Your task to perform on an android device: How much does a 3 bedroom apartment rent for in Denver? Image 0: 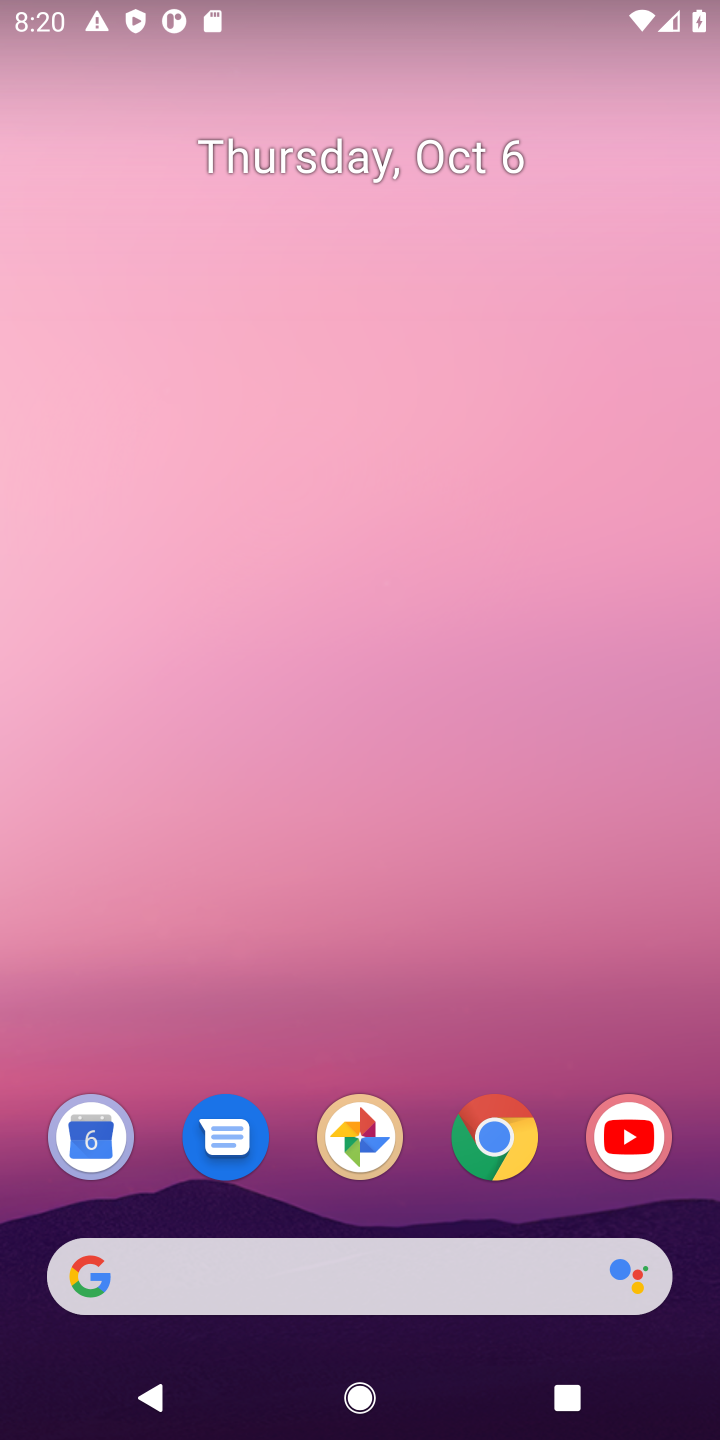
Step 0: click (513, 1136)
Your task to perform on an android device: How much does a 3 bedroom apartment rent for in Denver? Image 1: 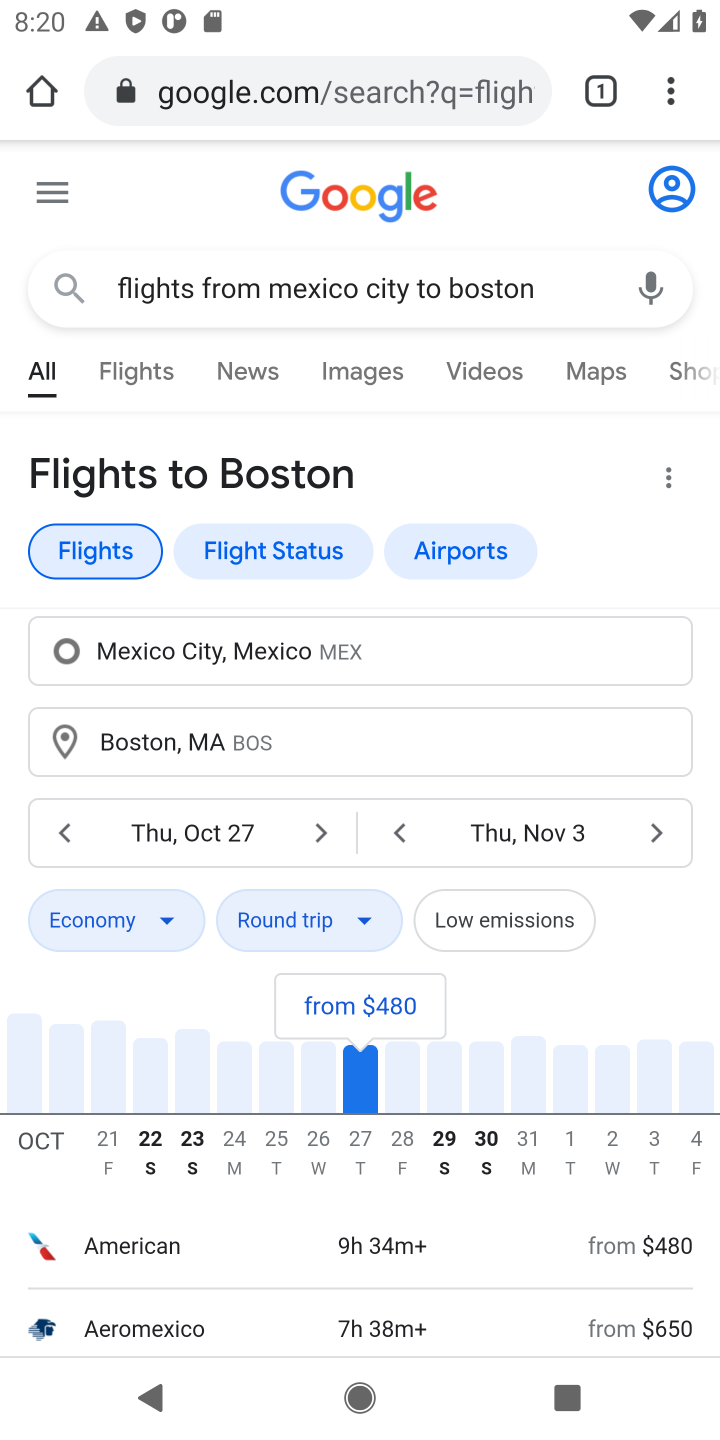
Step 1: click (351, 95)
Your task to perform on an android device: How much does a 3 bedroom apartment rent for in Denver? Image 2: 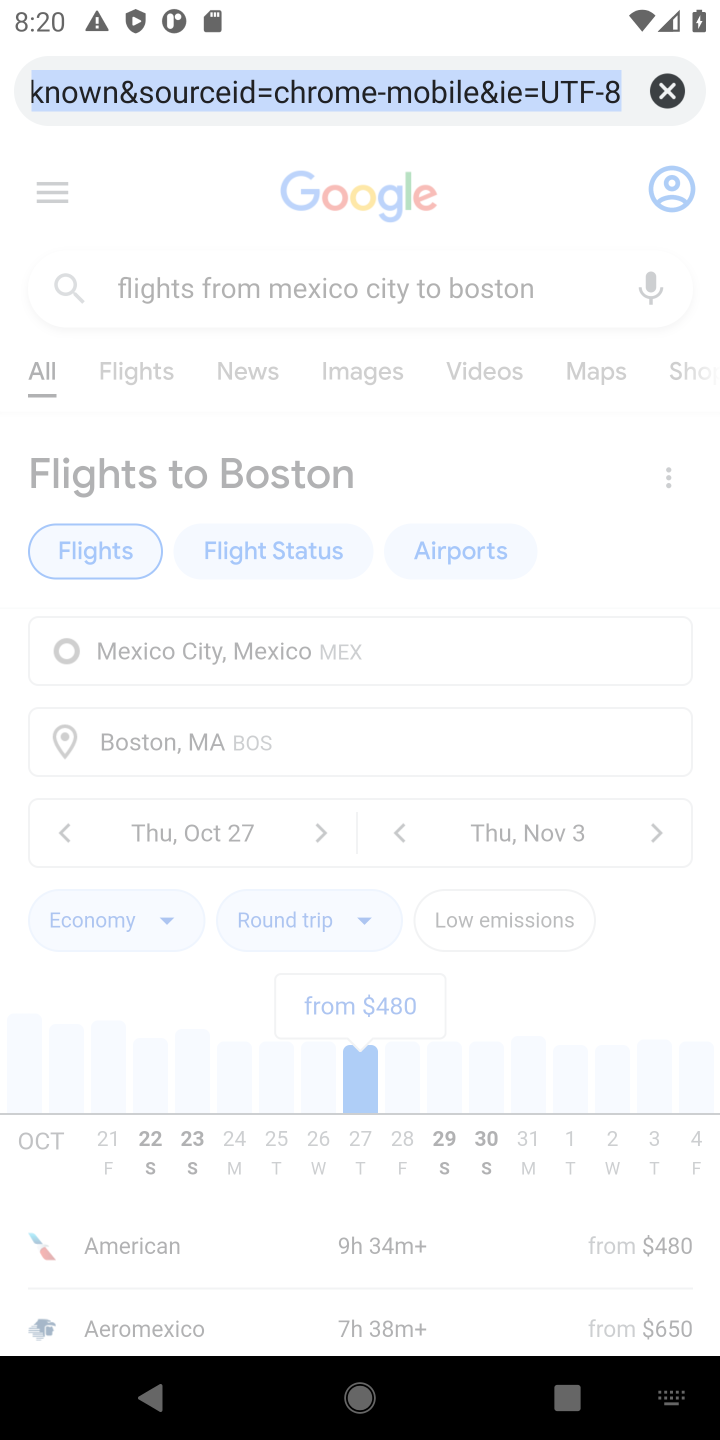
Step 2: click (672, 90)
Your task to perform on an android device: How much does a 3 bedroom apartment rent for in Denver? Image 3: 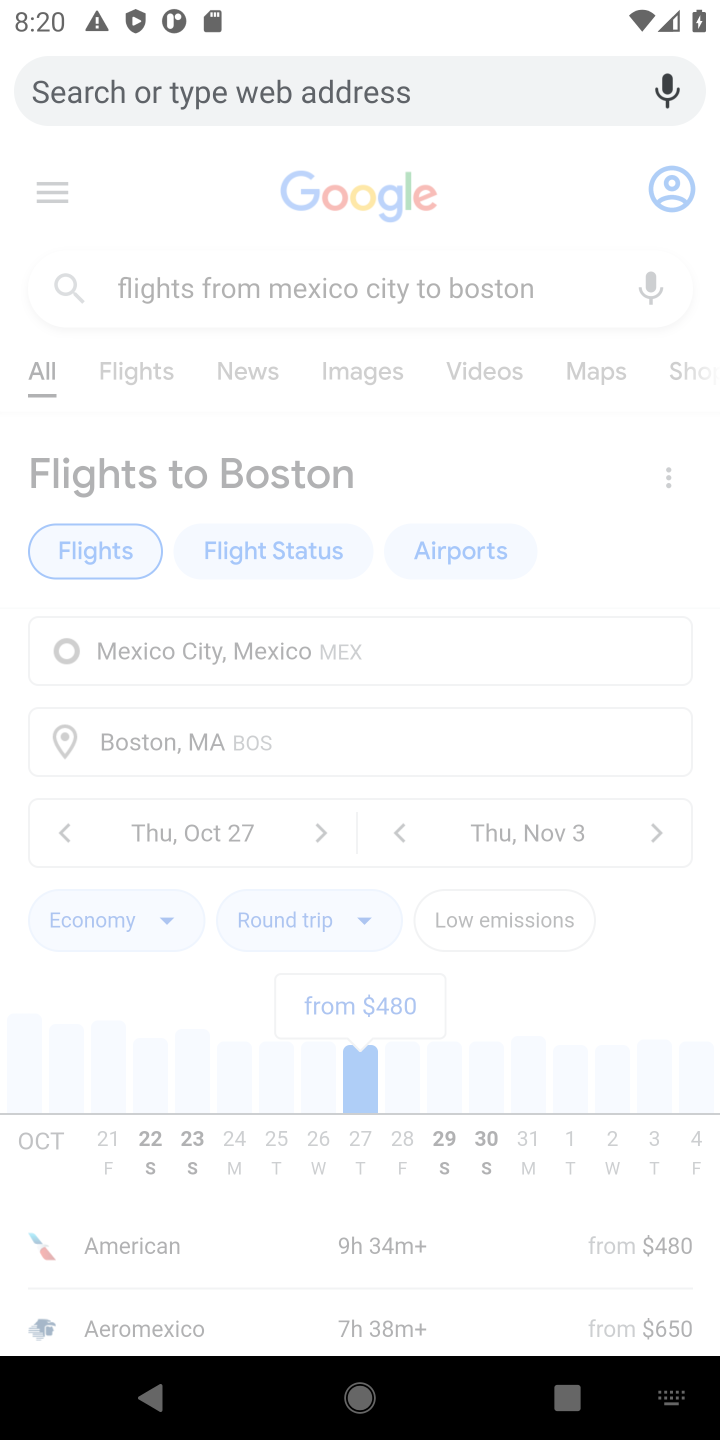
Step 3: type "How much does a 3 bedroom apartment rent for in Denver?"
Your task to perform on an android device: How much does a 3 bedroom apartment rent for in Denver? Image 4: 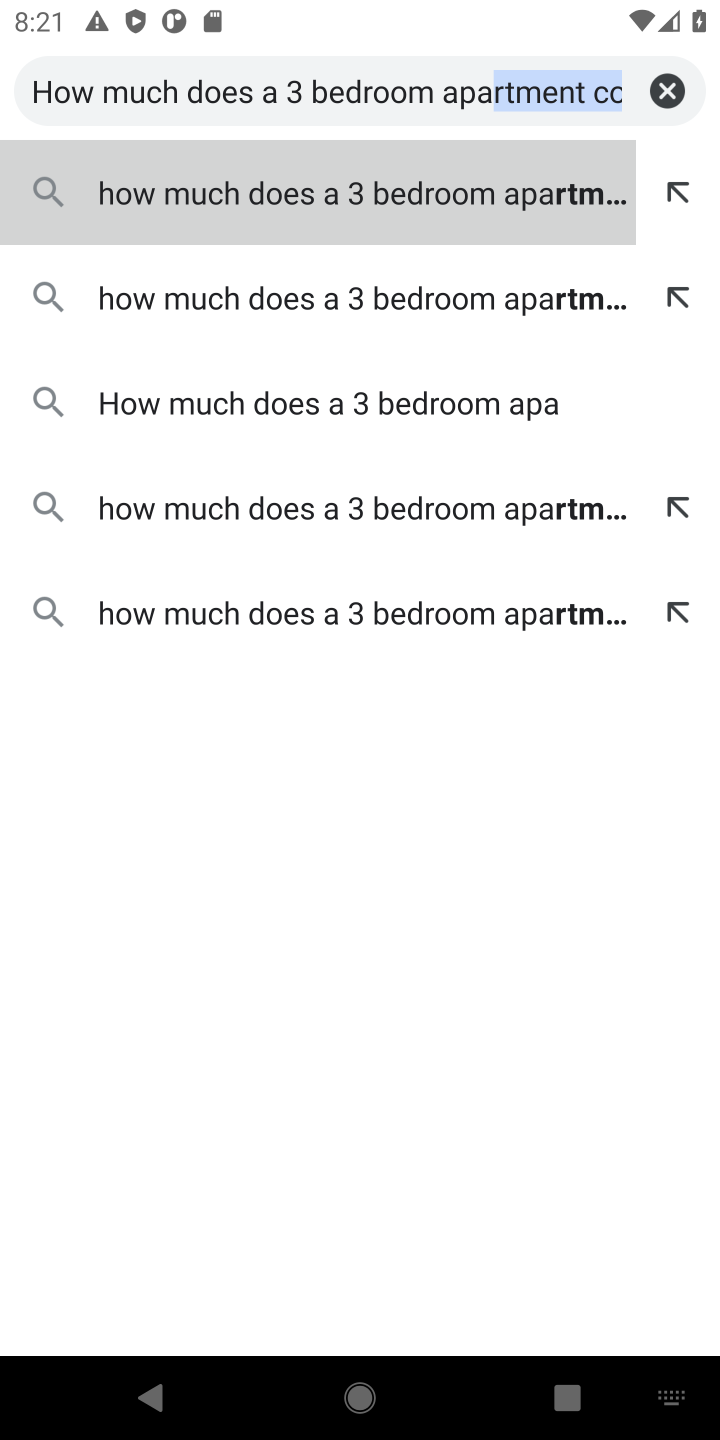
Step 4: click (329, 196)
Your task to perform on an android device: How much does a 3 bedroom apartment rent for in Denver? Image 5: 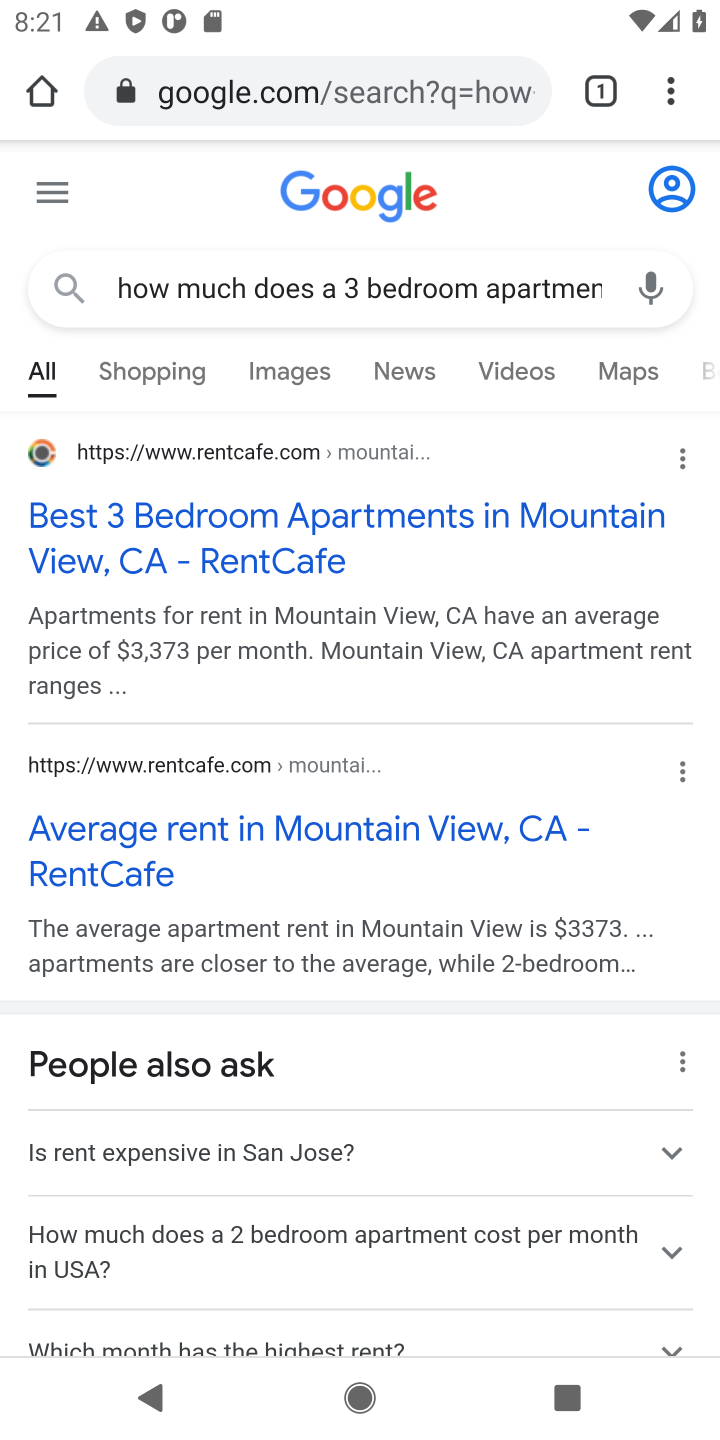
Step 5: drag from (346, 952) to (339, 510)
Your task to perform on an android device: How much does a 3 bedroom apartment rent for in Denver? Image 6: 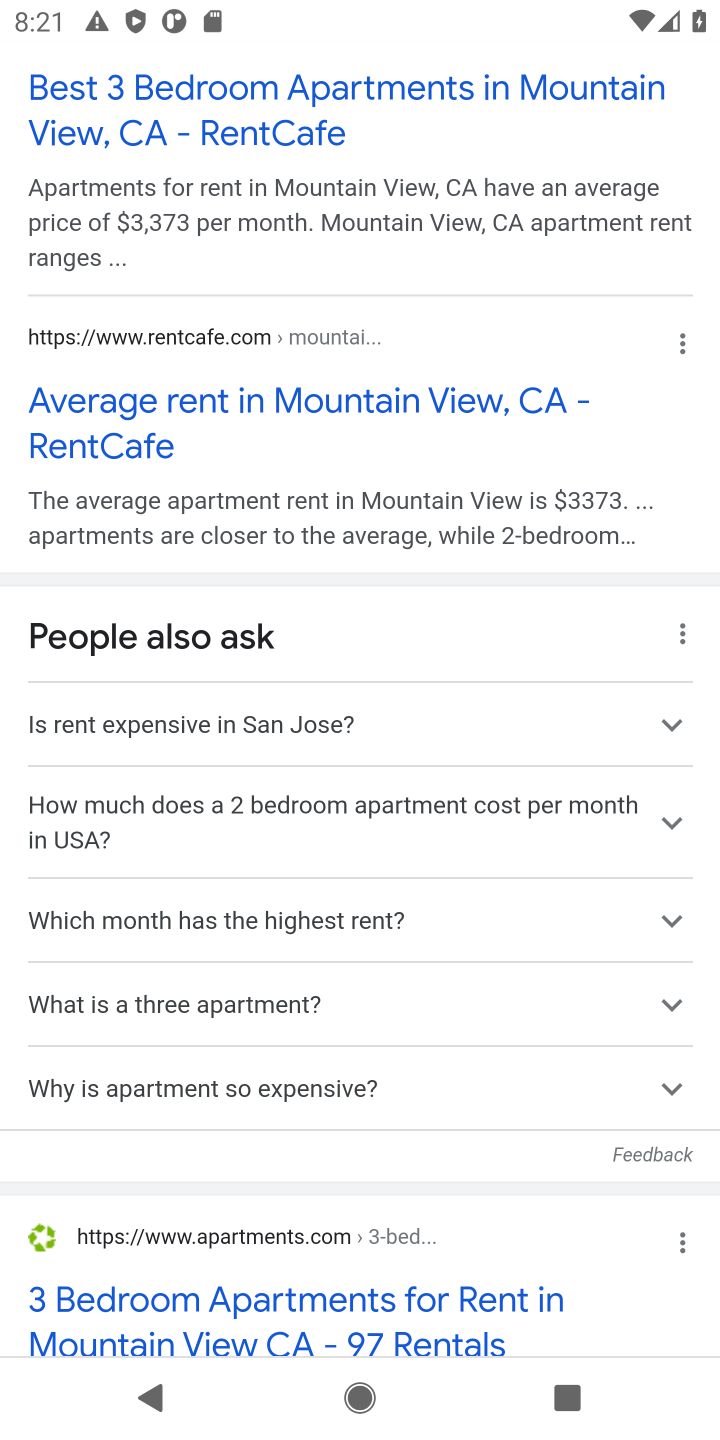
Step 6: drag from (327, 1069) to (339, 642)
Your task to perform on an android device: How much does a 3 bedroom apartment rent for in Denver? Image 7: 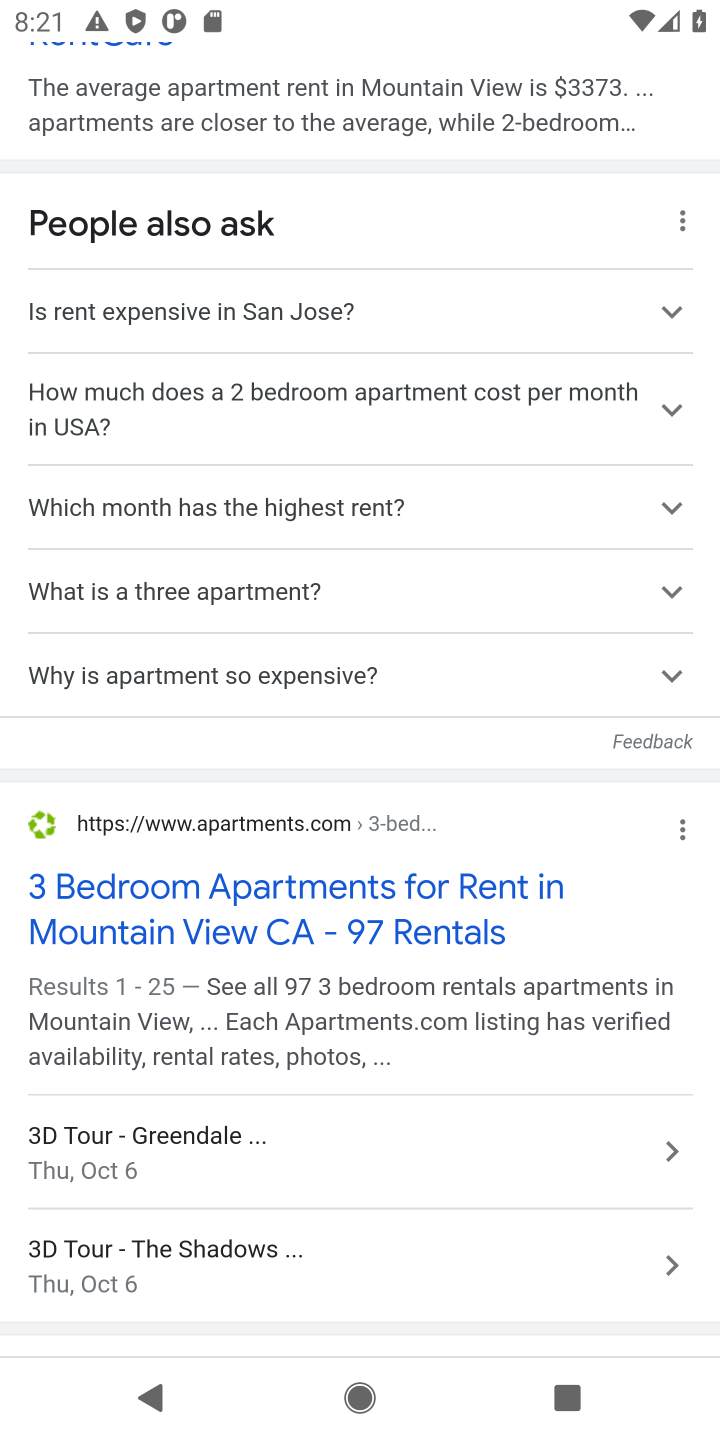
Step 7: drag from (341, 325) to (402, 1265)
Your task to perform on an android device: How much does a 3 bedroom apartment rent for in Denver? Image 8: 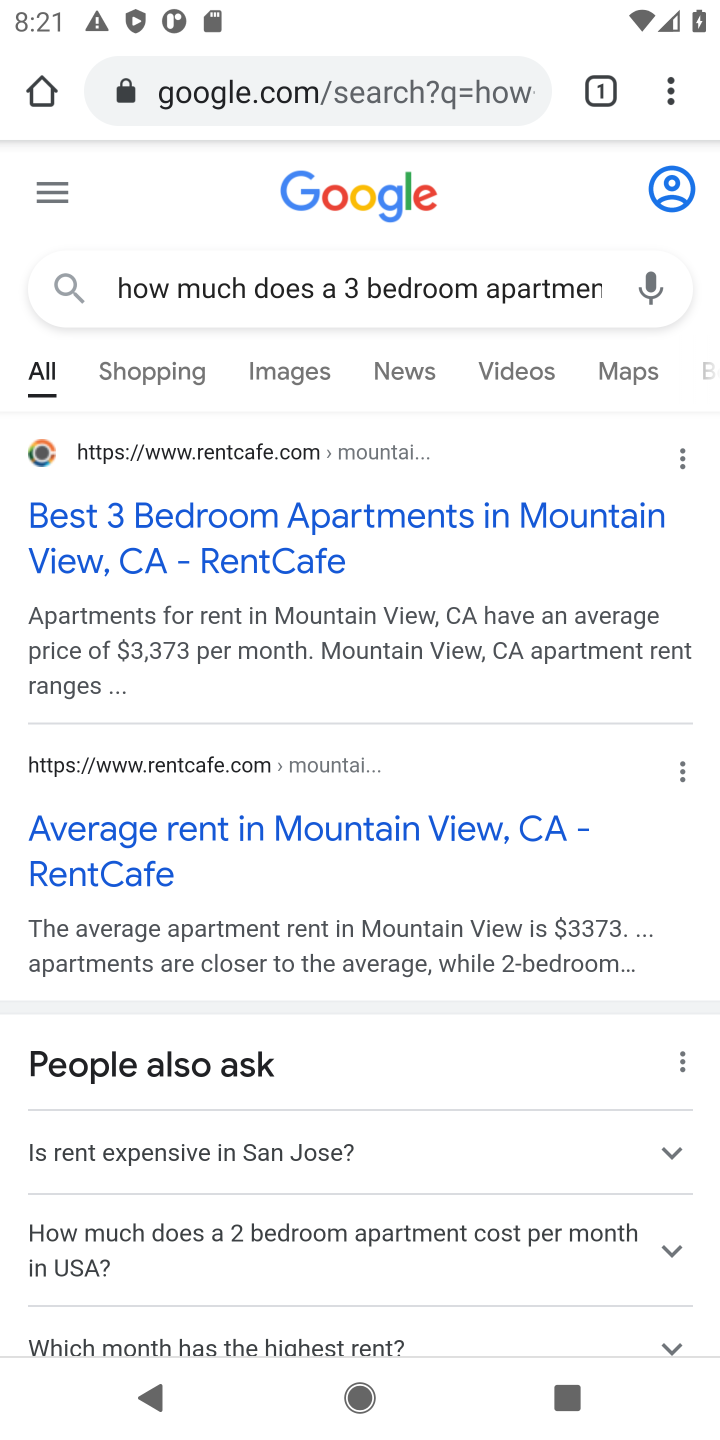
Step 8: drag from (354, 252) to (399, 803)
Your task to perform on an android device: How much does a 3 bedroom apartment rent for in Denver? Image 9: 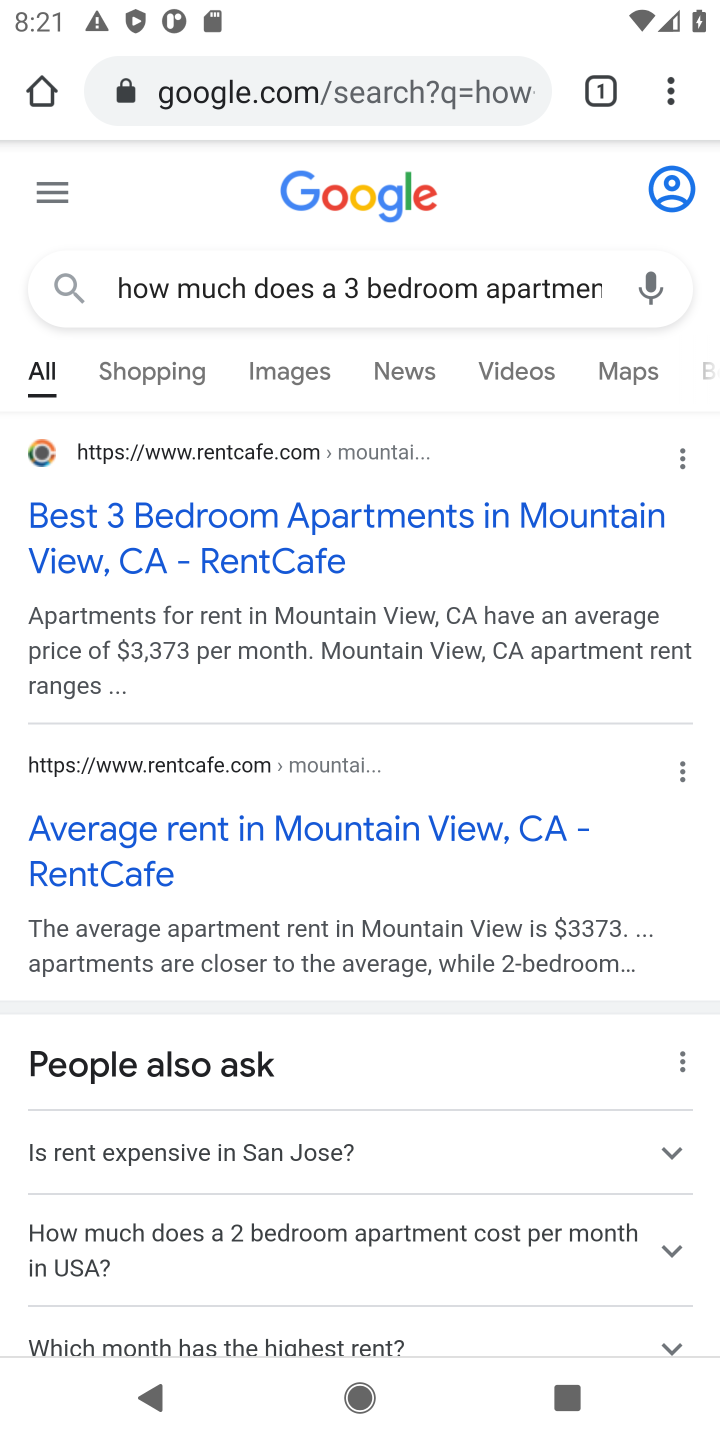
Step 9: click (568, 290)
Your task to perform on an android device: How much does a 3 bedroom apartment rent for in Denver? Image 10: 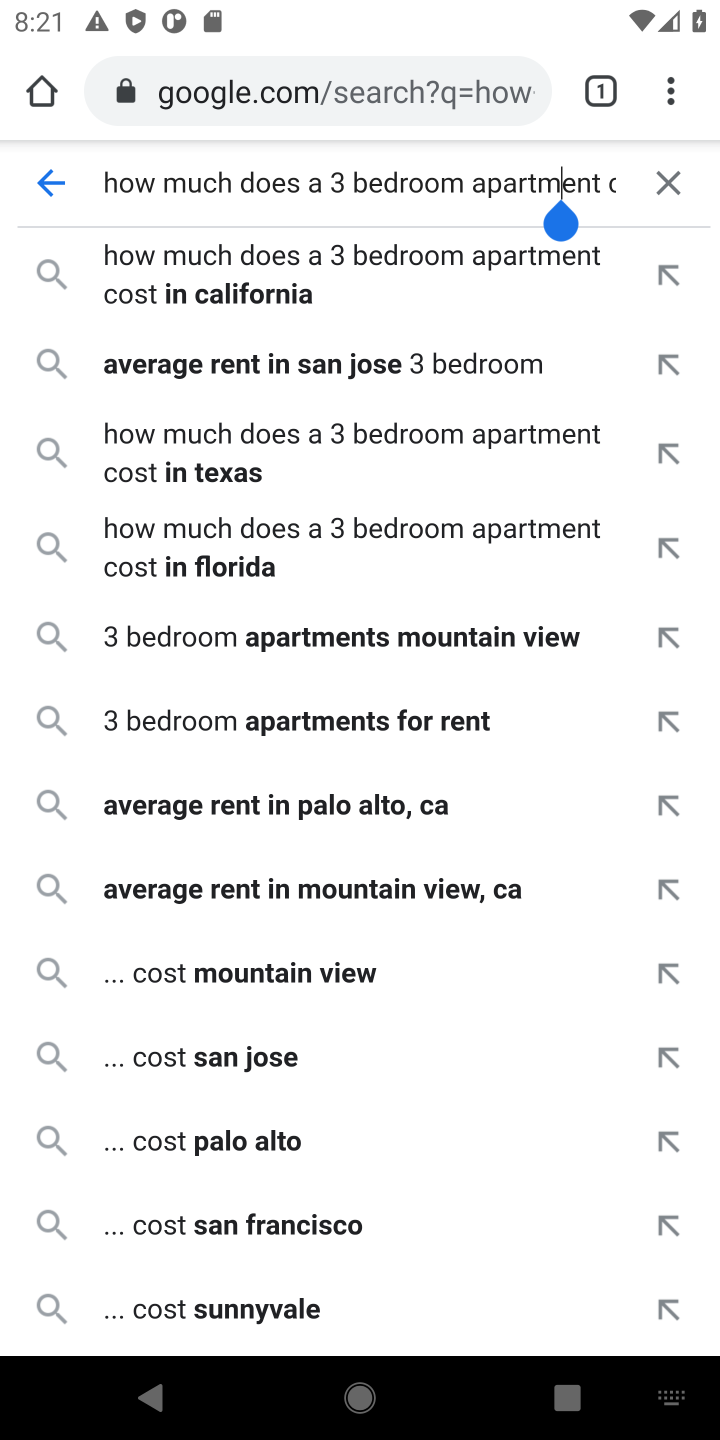
Step 10: click (667, 186)
Your task to perform on an android device: How much does a 3 bedroom apartment rent for in Denver? Image 11: 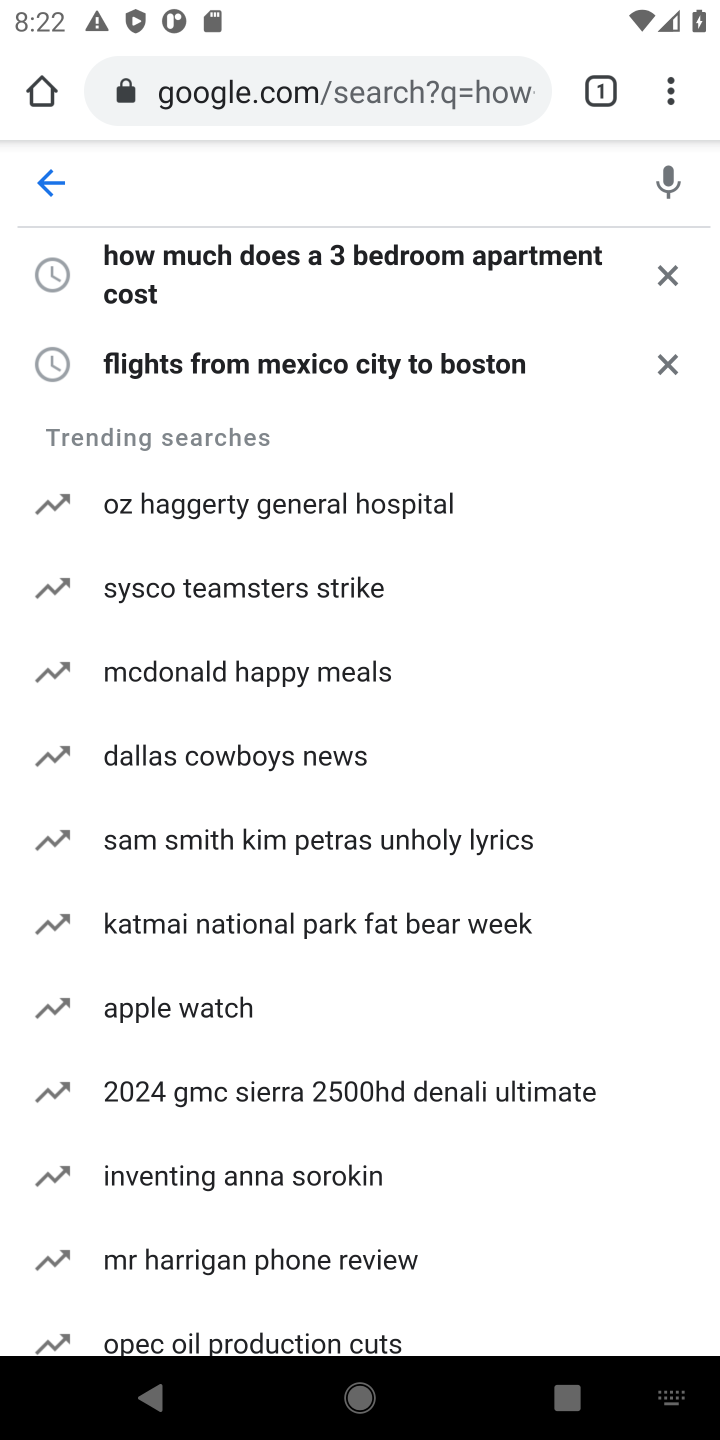
Step 11: click (429, 186)
Your task to perform on an android device: How much does a 3 bedroom apartment rent for in Denver? Image 12: 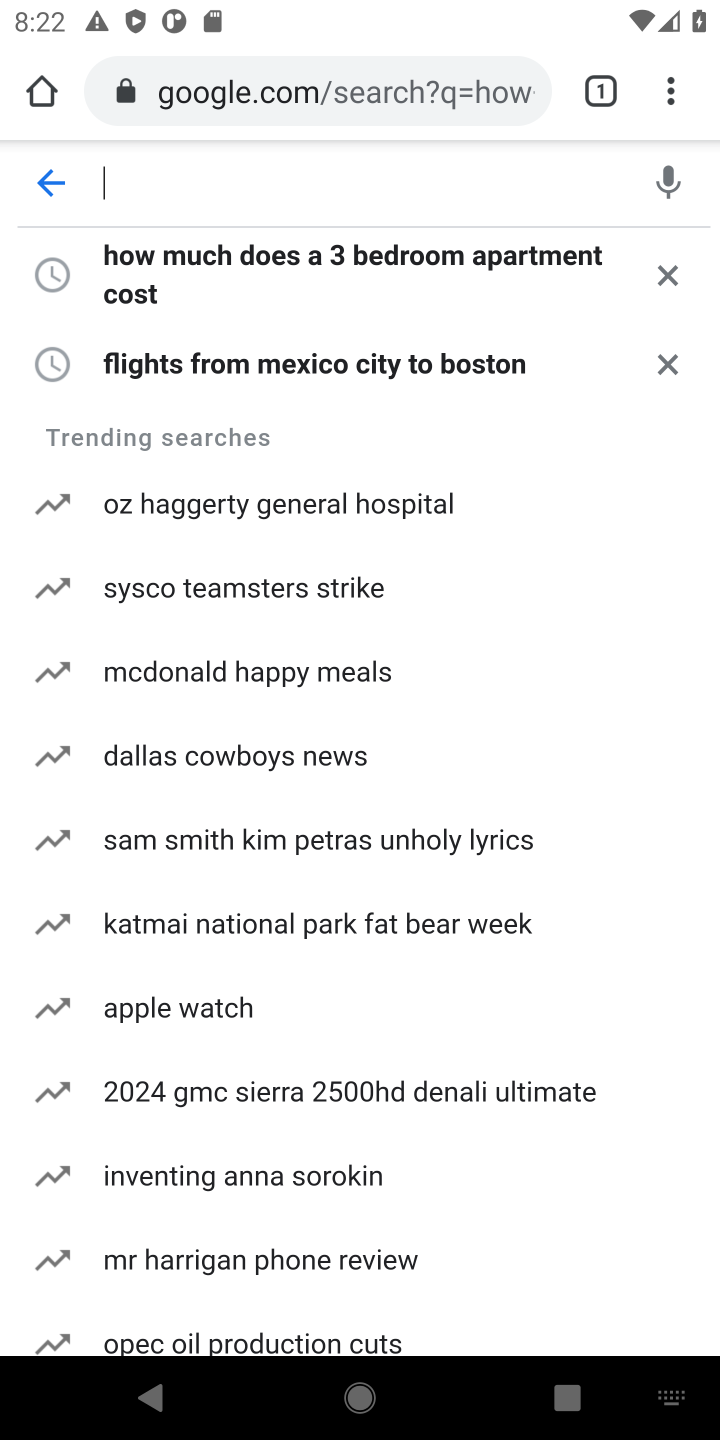
Step 12: type "How much does a 3 bedroom apartment rent for in Denver?"
Your task to perform on an android device: How much does a 3 bedroom apartment rent for in Denver? Image 13: 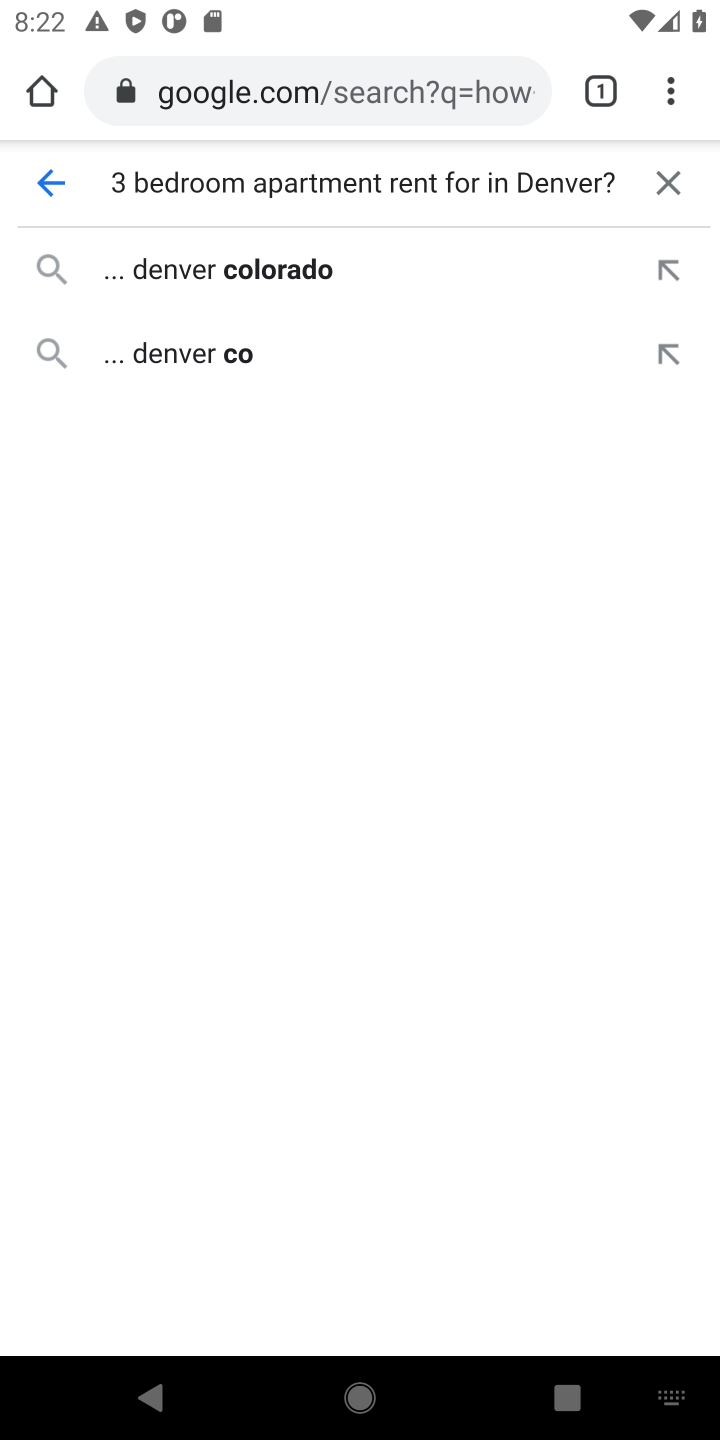
Step 13: click (279, 276)
Your task to perform on an android device: How much does a 3 bedroom apartment rent for in Denver? Image 14: 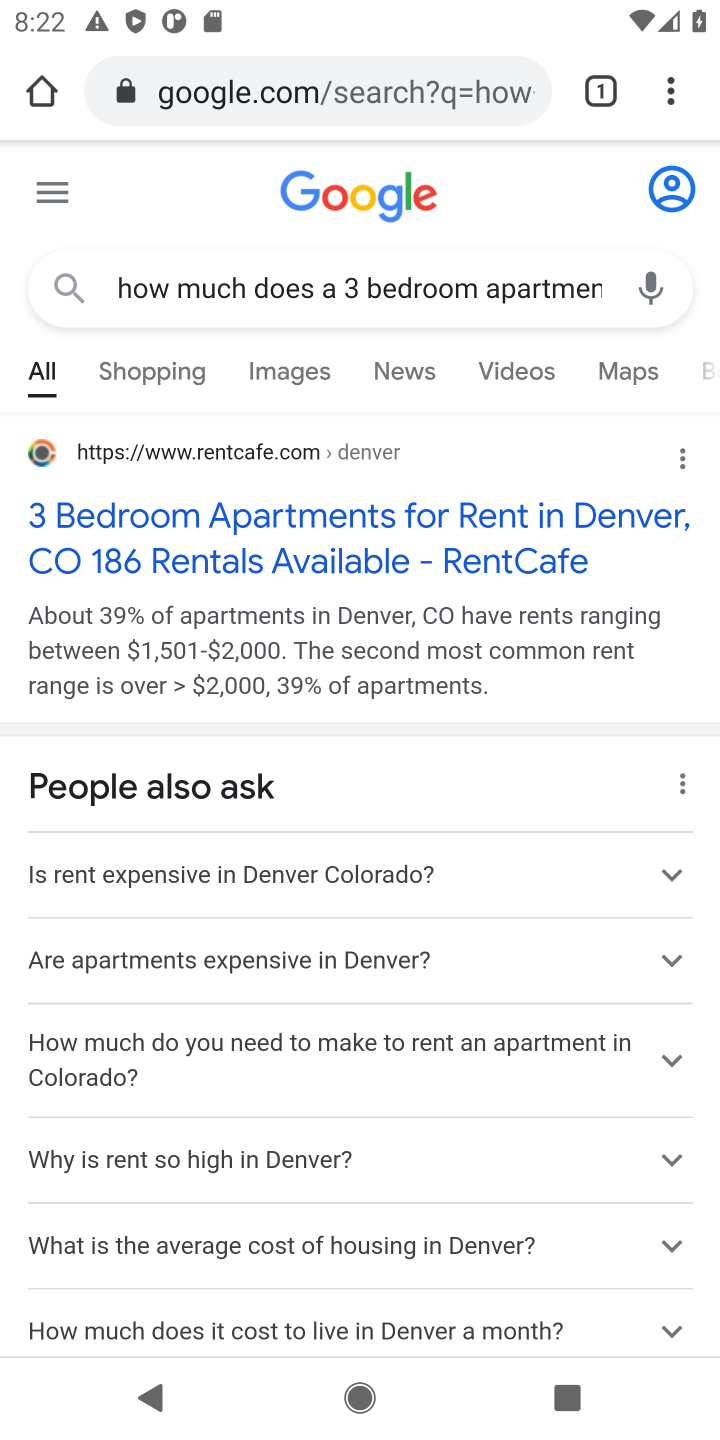
Step 14: click (258, 551)
Your task to perform on an android device: How much does a 3 bedroom apartment rent for in Denver? Image 15: 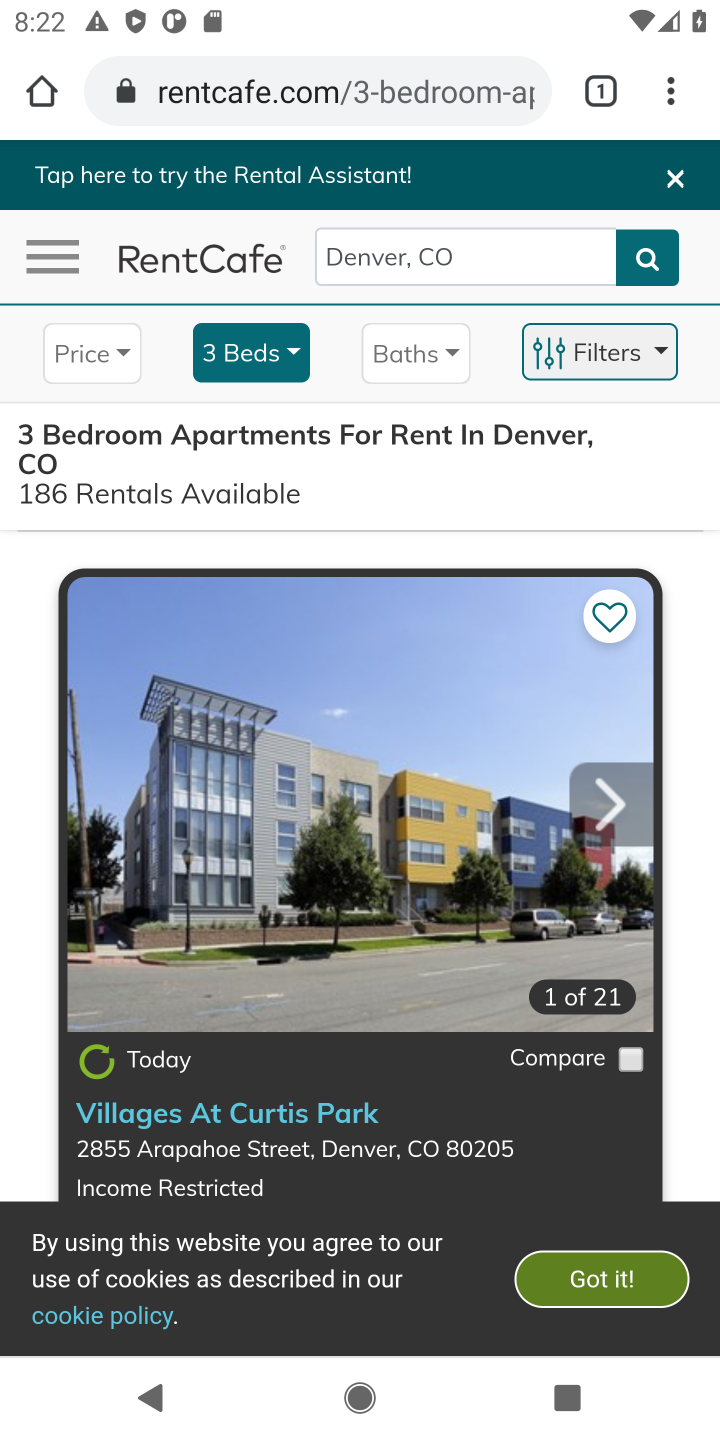
Step 15: task complete